Your task to perform on an android device: turn off airplane mode Image 0: 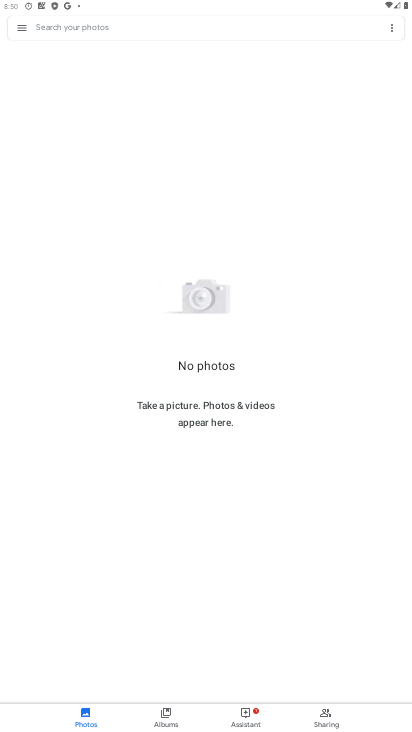
Step 0: press home button
Your task to perform on an android device: turn off airplane mode Image 1: 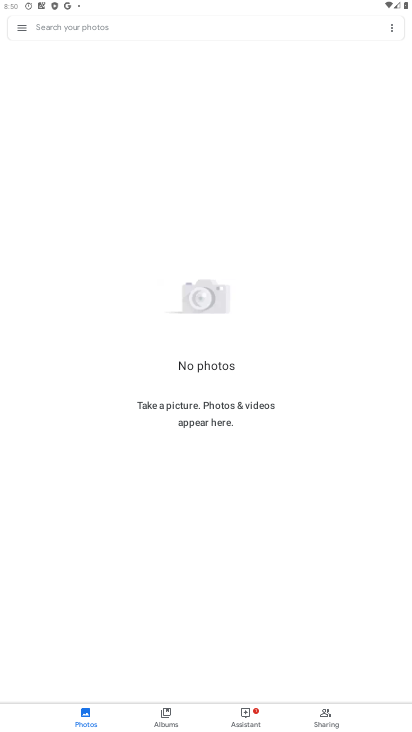
Step 1: press home button
Your task to perform on an android device: turn off airplane mode Image 2: 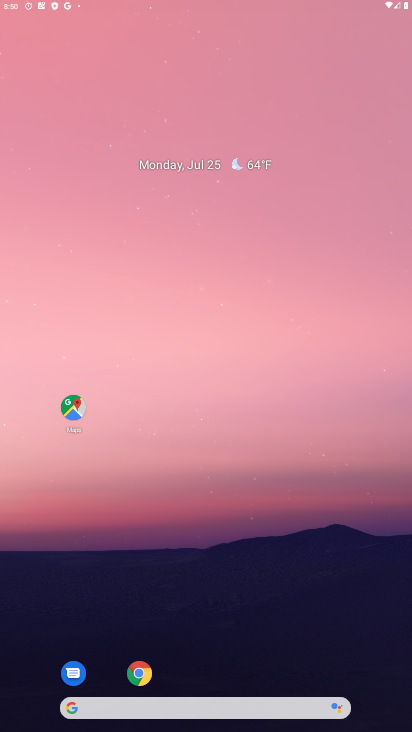
Step 2: drag from (187, 348) to (178, 31)
Your task to perform on an android device: turn off airplane mode Image 3: 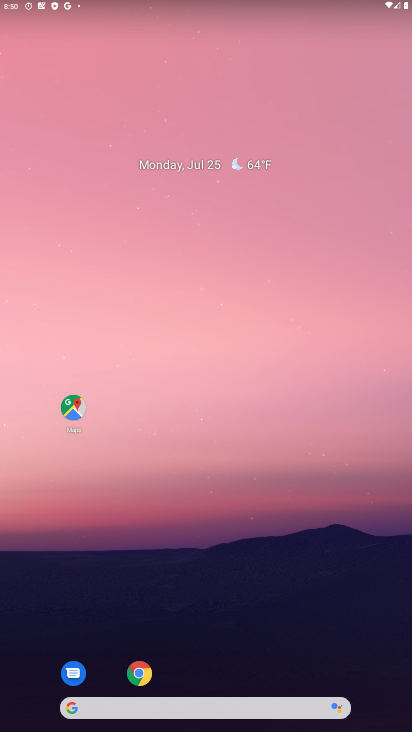
Step 3: drag from (217, 678) to (234, 0)
Your task to perform on an android device: turn off airplane mode Image 4: 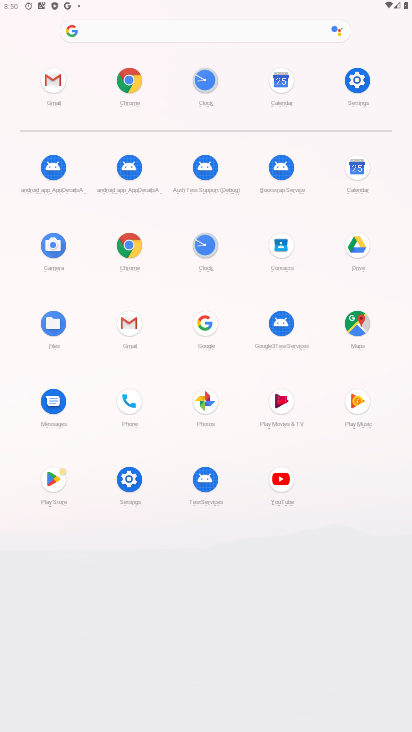
Step 4: click (363, 76)
Your task to perform on an android device: turn off airplane mode Image 5: 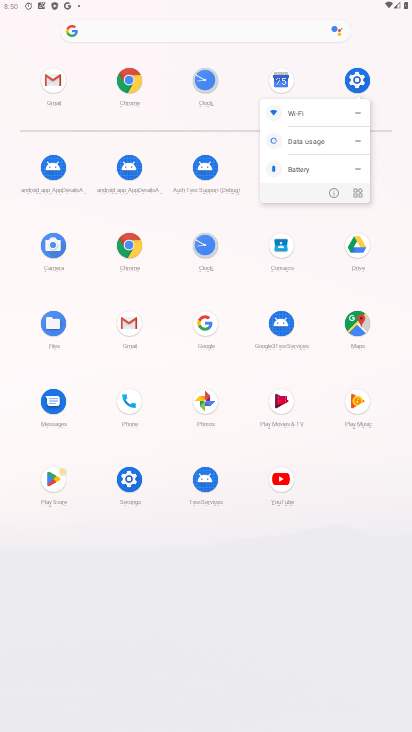
Step 5: click (331, 199)
Your task to perform on an android device: turn off airplane mode Image 6: 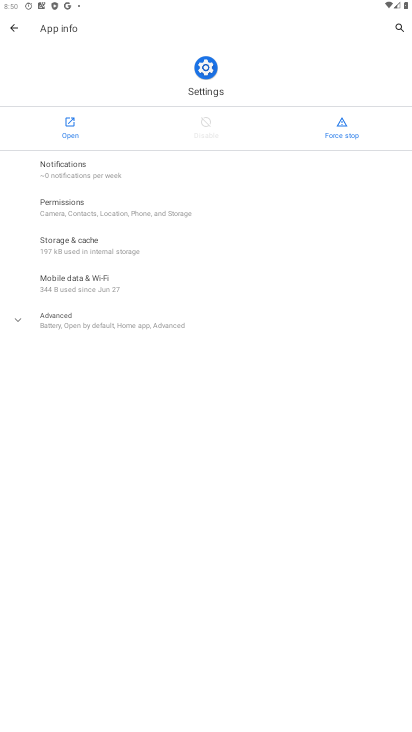
Step 6: click (72, 128)
Your task to perform on an android device: turn off airplane mode Image 7: 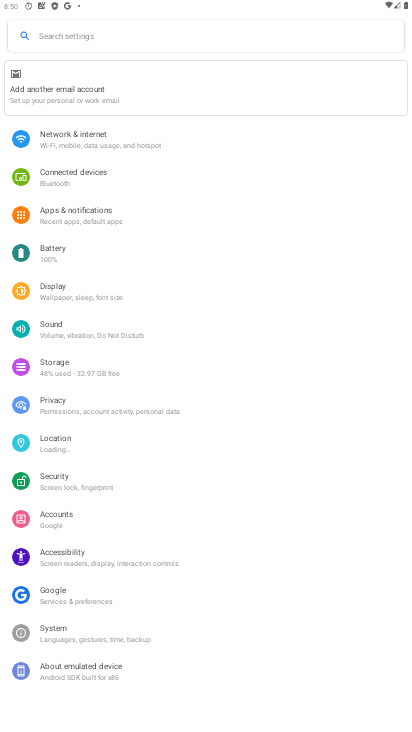
Step 7: click (120, 142)
Your task to perform on an android device: turn off airplane mode Image 8: 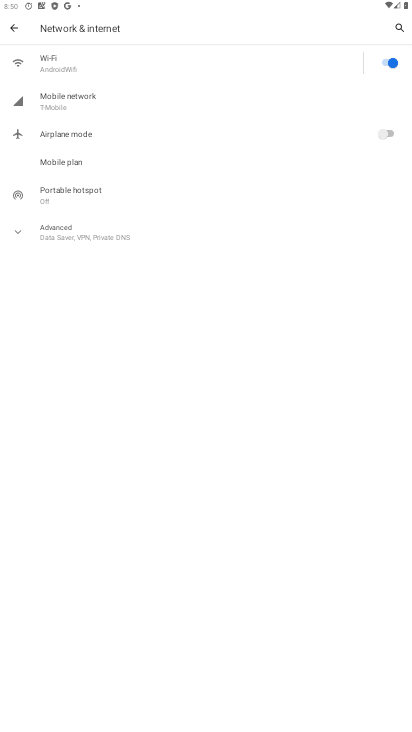
Step 8: task complete